Your task to perform on an android device: Empty the shopping cart on ebay. Image 0: 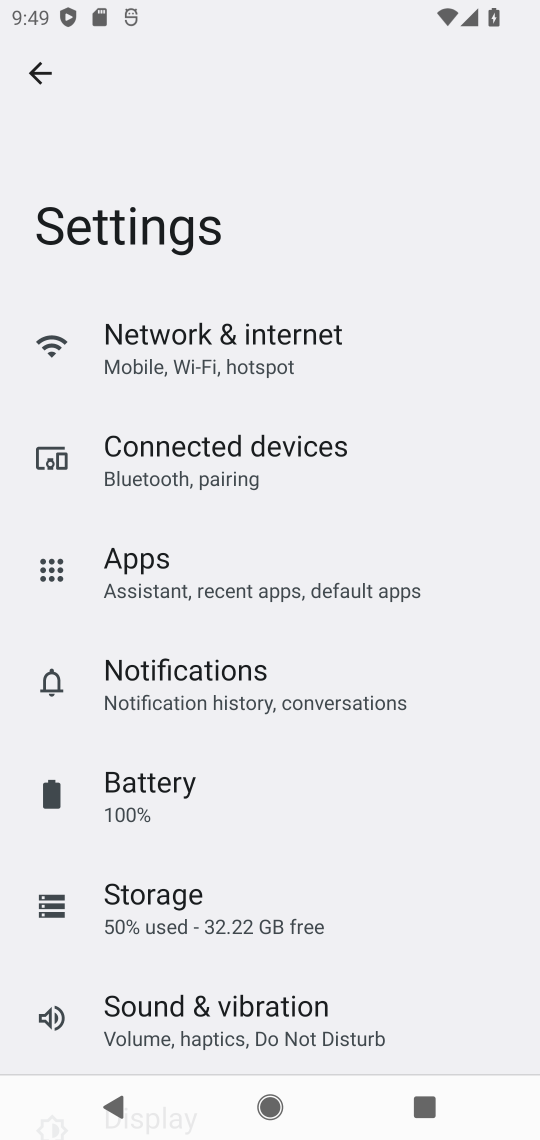
Step 0: press home button
Your task to perform on an android device: Empty the shopping cart on ebay. Image 1: 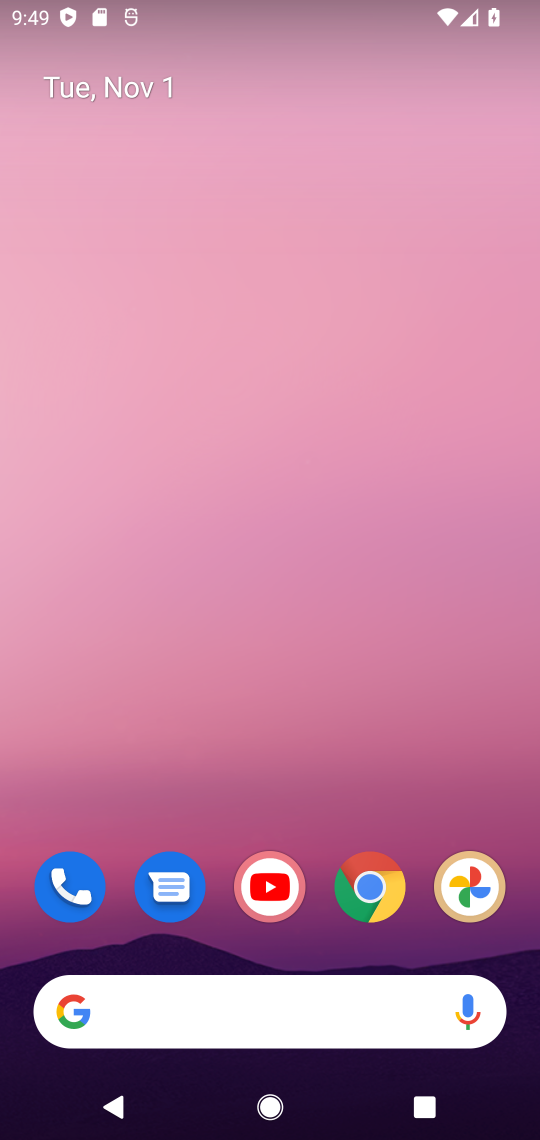
Step 1: click (366, 874)
Your task to perform on an android device: Empty the shopping cart on ebay. Image 2: 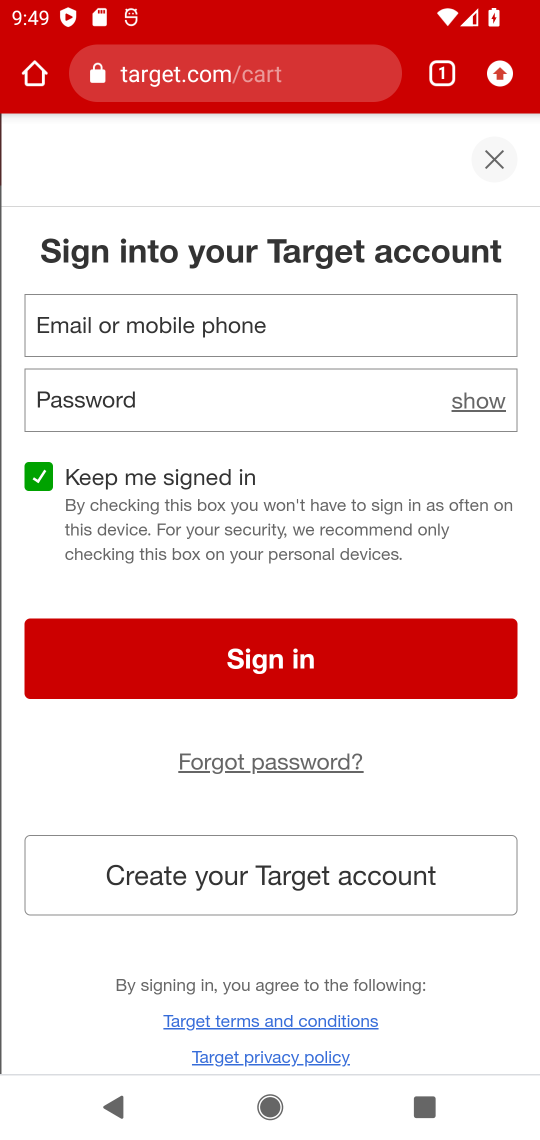
Step 2: click (266, 64)
Your task to perform on an android device: Empty the shopping cart on ebay. Image 3: 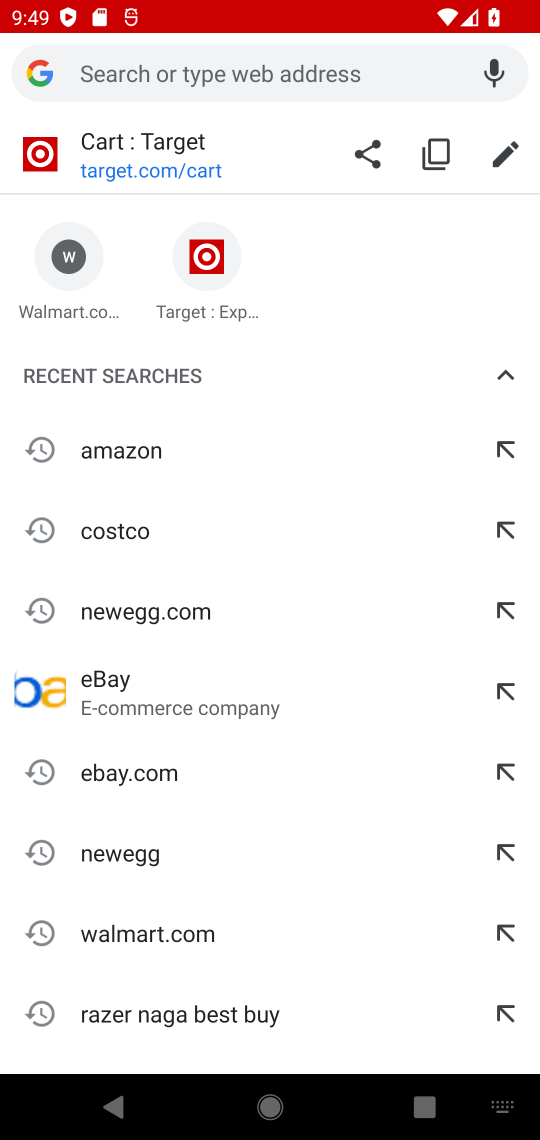
Step 3: click (151, 763)
Your task to perform on an android device: Empty the shopping cart on ebay. Image 4: 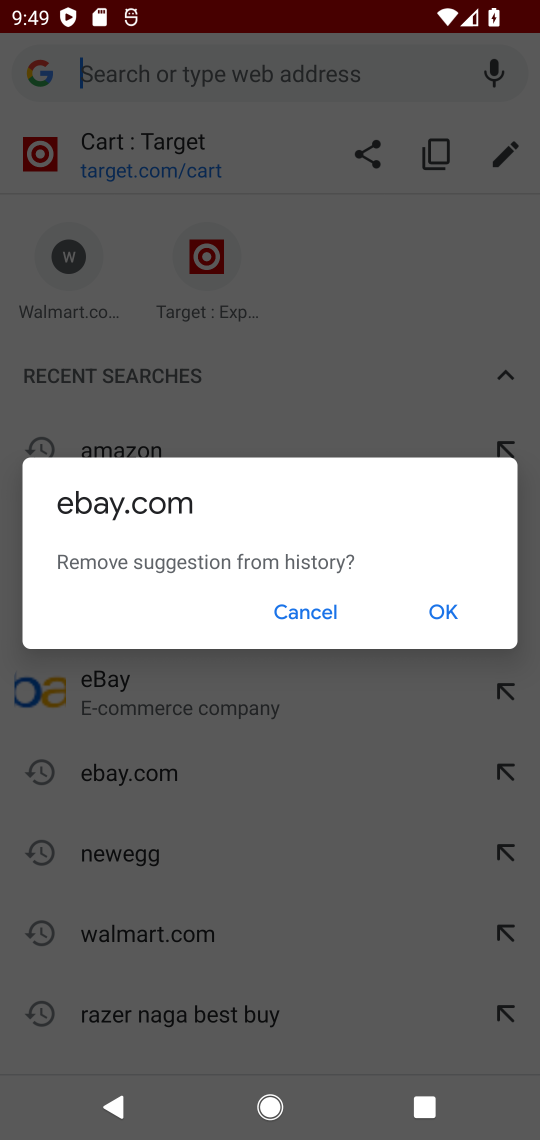
Step 4: click (457, 617)
Your task to perform on an android device: Empty the shopping cart on ebay. Image 5: 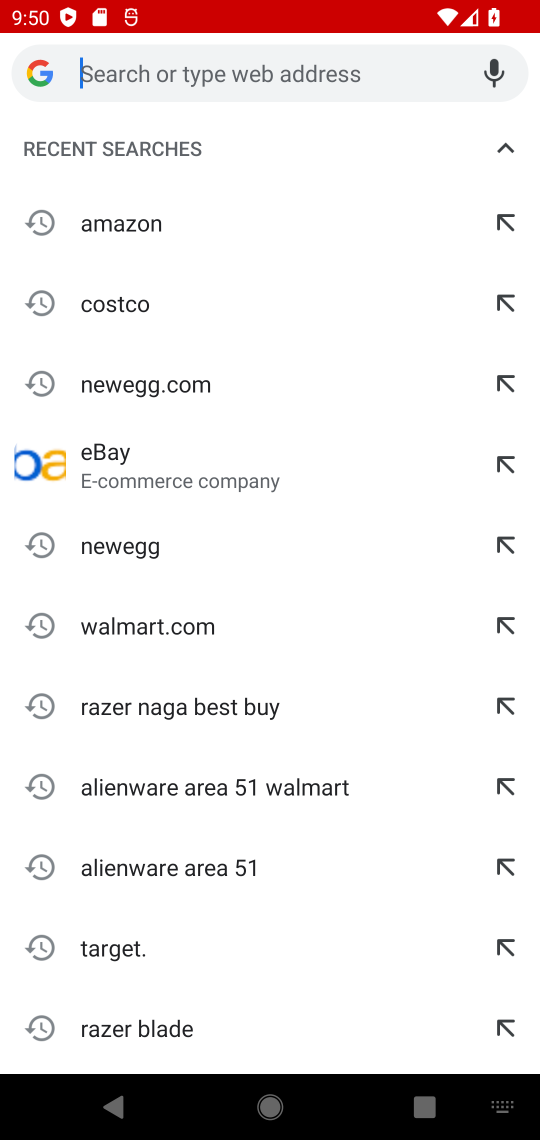
Step 5: type "ebay."
Your task to perform on an android device: Empty the shopping cart on ebay. Image 6: 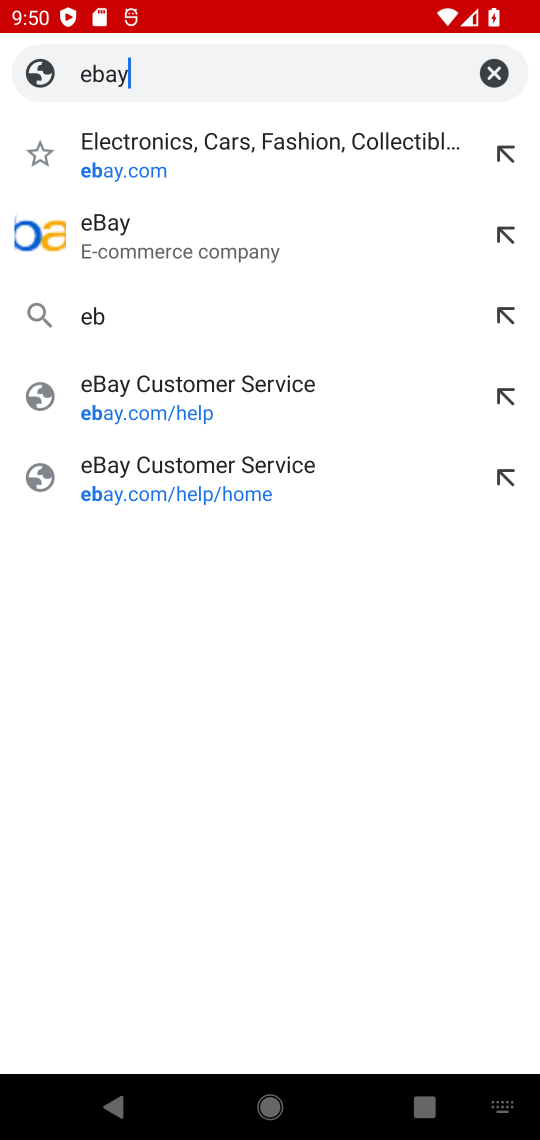
Step 6: press enter
Your task to perform on an android device: Empty the shopping cart on ebay. Image 7: 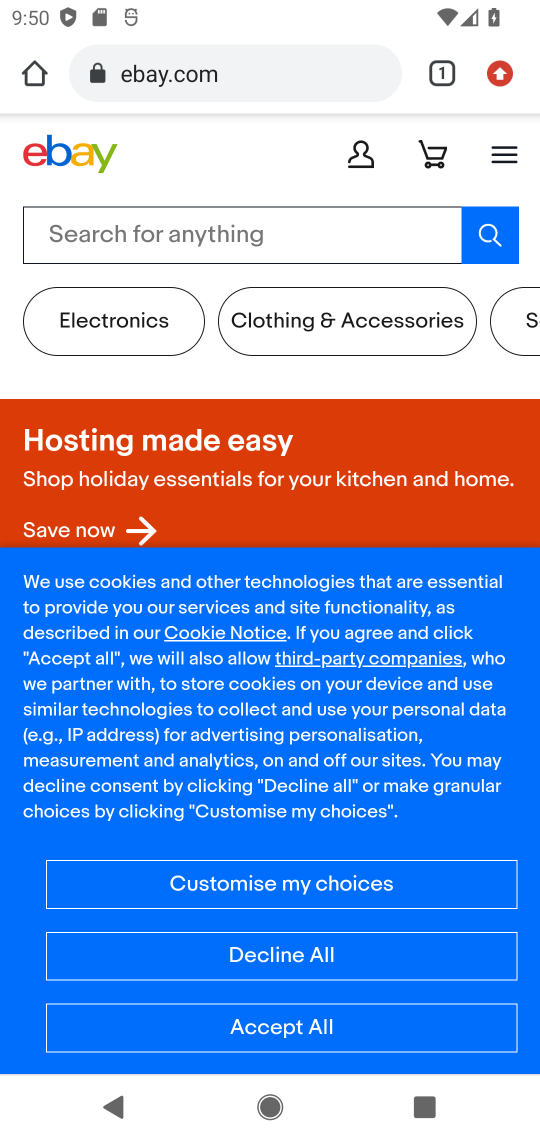
Step 7: click (431, 164)
Your task to perform on an android device: Empty the shopping cart on ebay. Image 8: 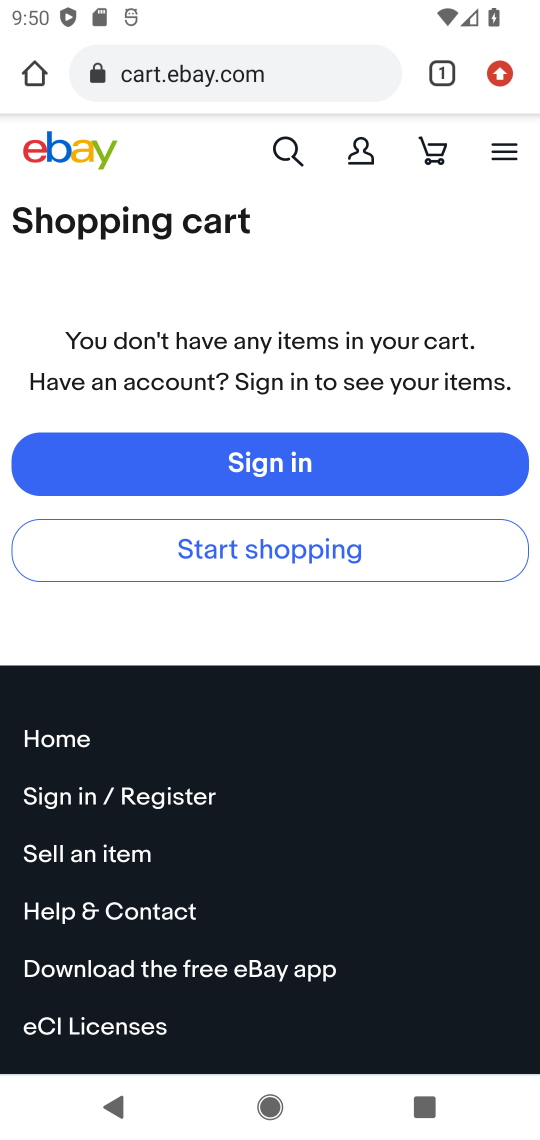
Step 8: task complete